Your task to perform on an android device: Open settings on Google Maps Image 0: 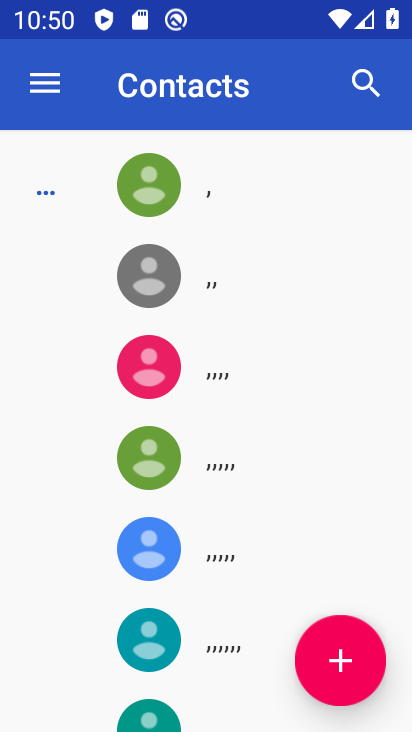
Step 0: press home button
Your task to perform on an android device: Open settings on Google Maps Image 1: 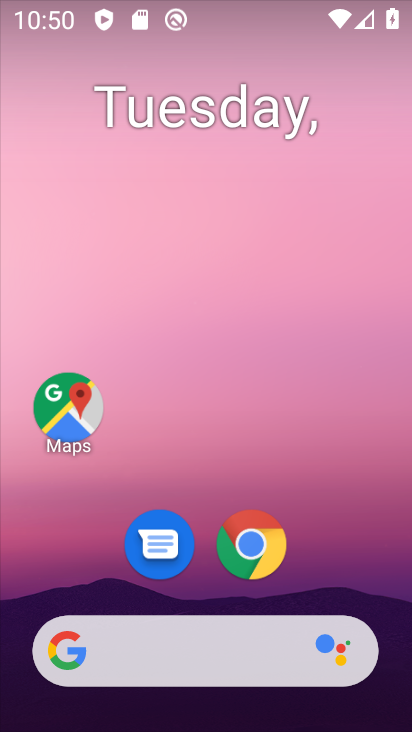
Step 1: drag from (357, 576) to (311, 65)
Your task to perform on an android device: Open settings on Google Maps Image 2: 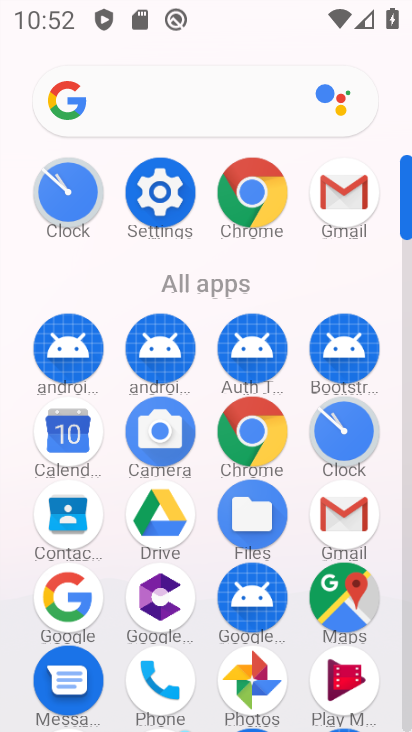
Step 2: click (339, 589)
Your task to perform on an android device: Open settings on Google Maps Image 3: 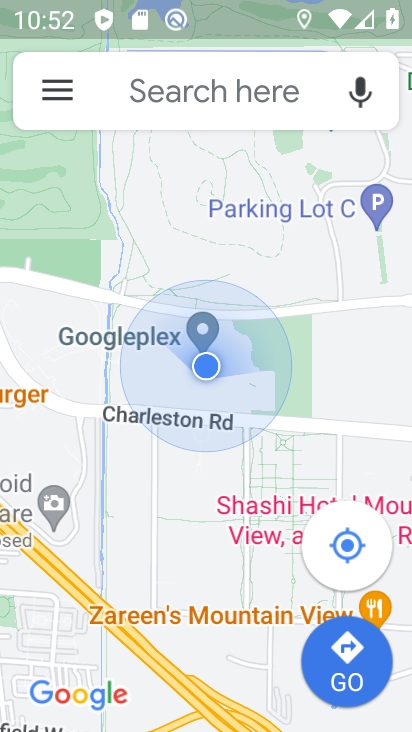
Step 3: task complete